Your task to perform on an android device: turn on priority inbox in the gmail app Image 0: 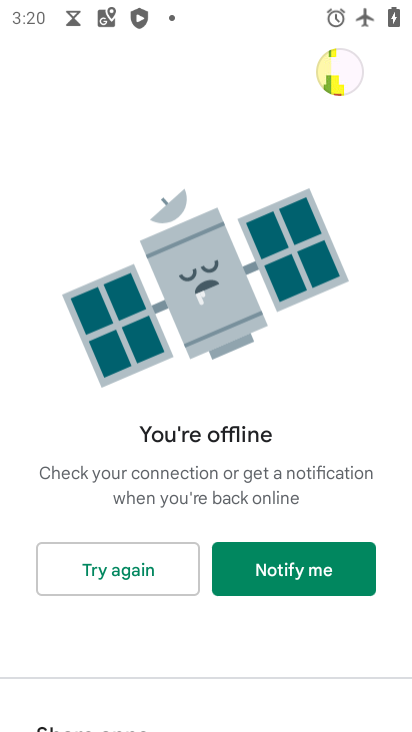
Step 0: press home button
Your task to perform on an android device: turn on priority inbox in the gmail app Image 1: 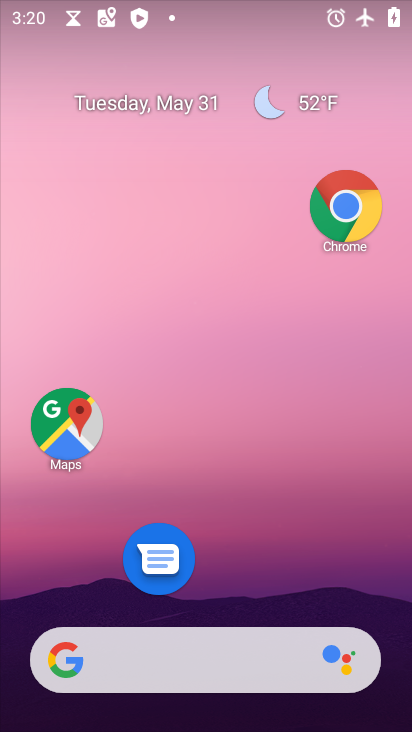
Step 1: drag from (280, 566) to (262, 166)
Your task to perform on an android device: turn on priority inbox in the gmail app Image 2: 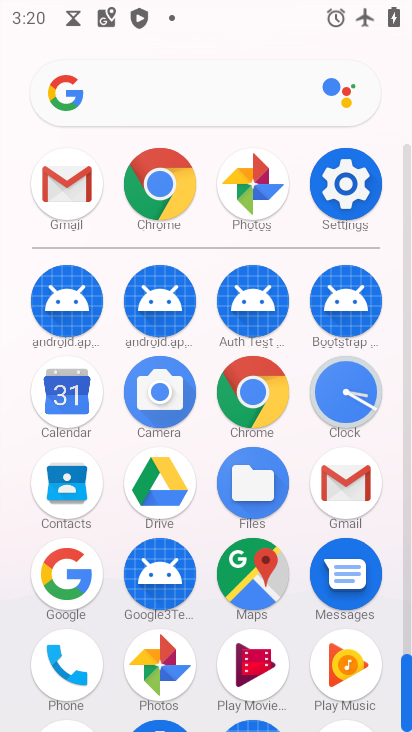
Step 2: click (335, 479)
Your task to perform on an android device: turn on priority inbox in the gmail app Image 3: 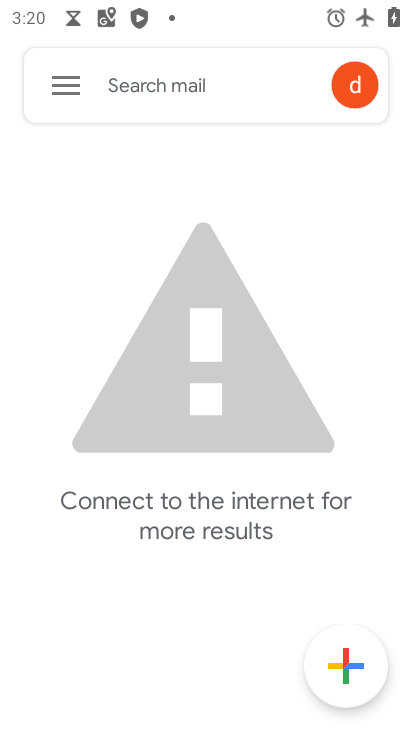
Step 3: click (58, 90)
Your task to perform on an android device: turn on priority inbox in the gmail app Image 4: 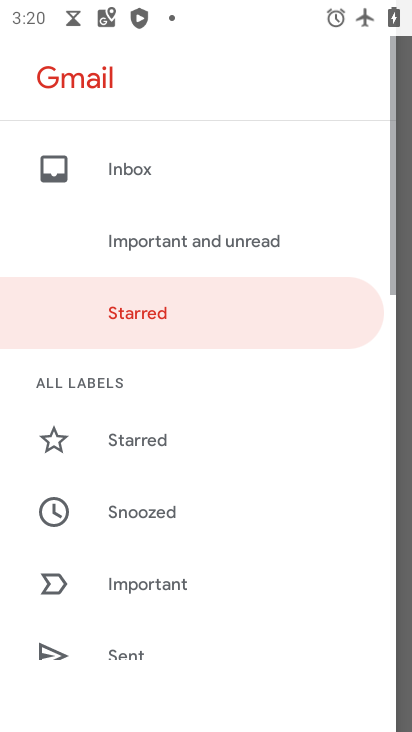
Step 4: drag from (96, 610) to (250, 117)
Your task to perform on an android device: turn on priority inbox in the gmail app Image 5: 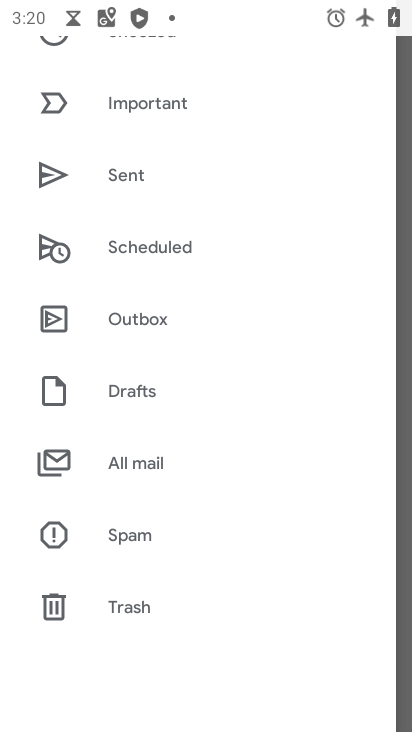
Step 5: drag from (156, 602) to (183, 172)
Your task to perform on an android device: turn on priority inbox in the gmail app Image 6: 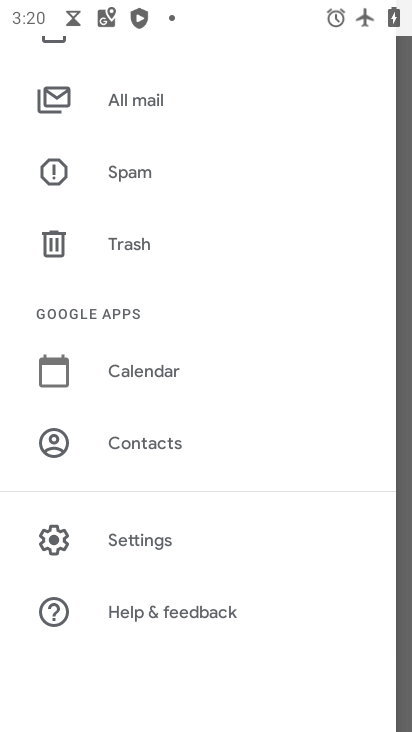
Step 6: click (148, 552)
Your task to perform on an android device: turn on priority inbox in the gmail app Image 7: 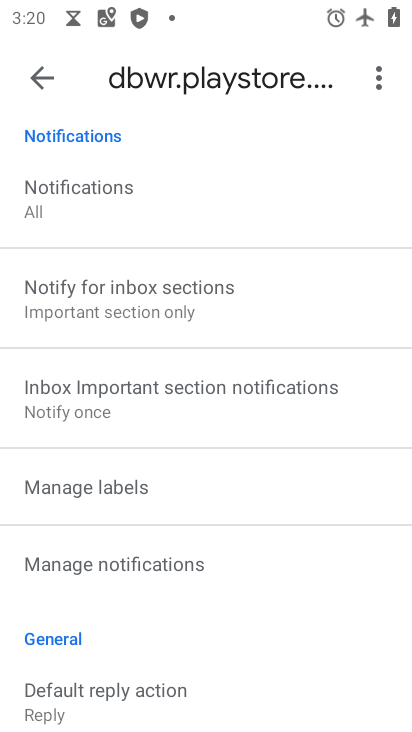
Step 7: task complete